Your task to perform on an android device: Set the phone to "Do not disturb". Image 0: 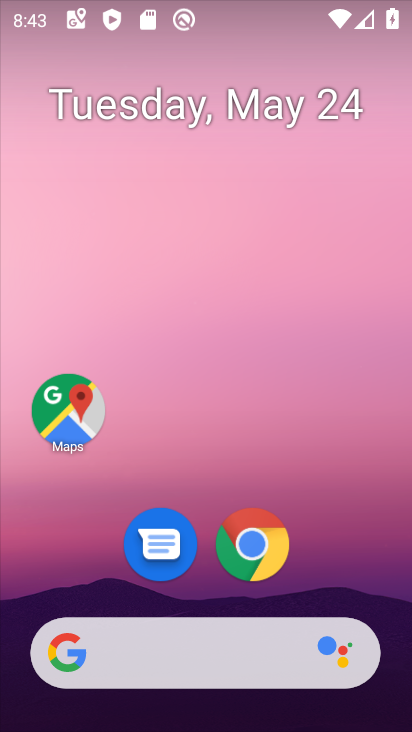
Step 0: drag from (385, 608) to (215, 41)
Your task to perform on an android device: Set the phone to "Do not disturb". Image 1: 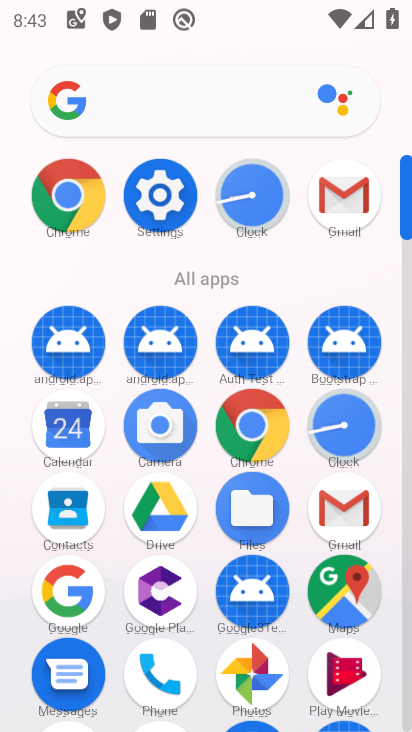
Step 1: click (173, 187)
Your task to perform on an android device: Set the phone to "Do not disturb". Image 2: 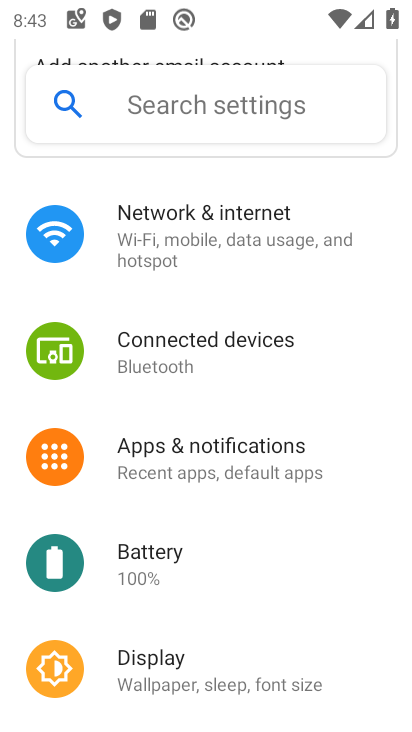
Step 2: drag from (259, 653) to (216, 309)
Your task to perform on an android device: Set the phone to "Do not disturb". Image 3: 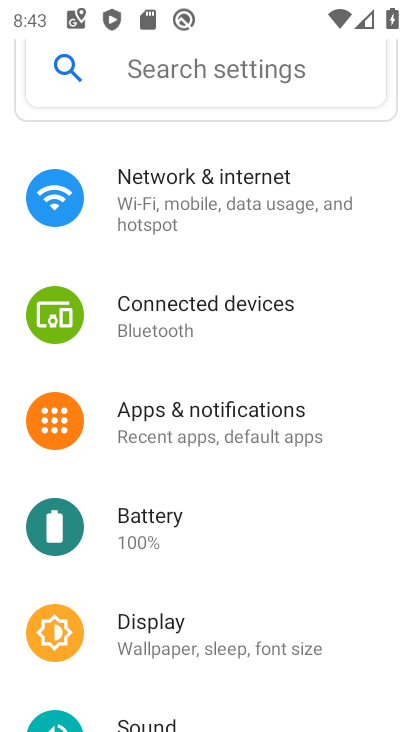
Step 3: drag from (202, 448) to (173, 277)
Your task to perform on an android device: Set the phone to "Do not disturb". Image 4: 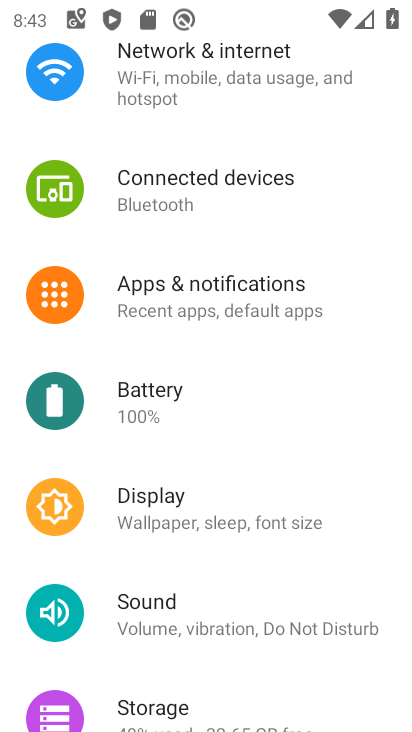
Step 4: click (176, 605)
Your task to perform on an android device: Set the phone to "Do not disturb". Image 5: 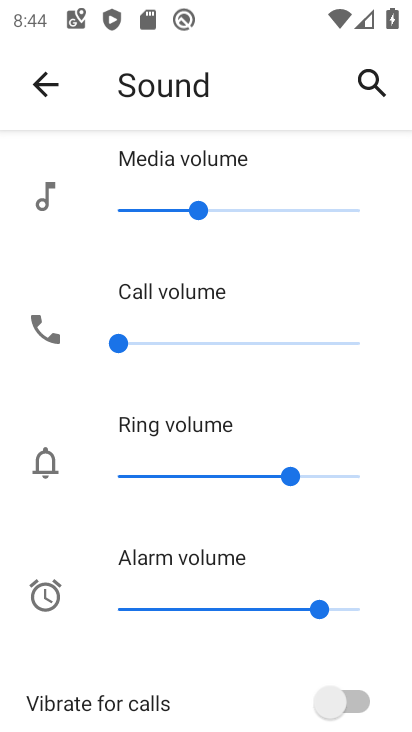
Step 5: drag from (234, 675) to (225, 120)
Your task to perform on an android device: Set the phone to "Do not disturb". Image 6: 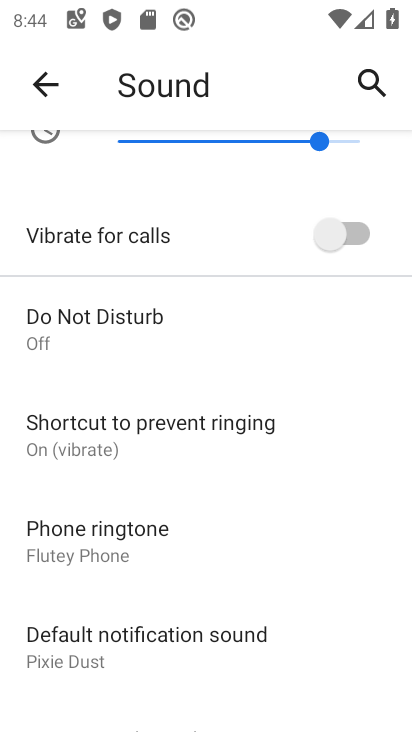
Step 6: drag from (190, 687) to (175, 252)
Your task to perform on an android device: Set the phone to "Do not disturb". Image 7: 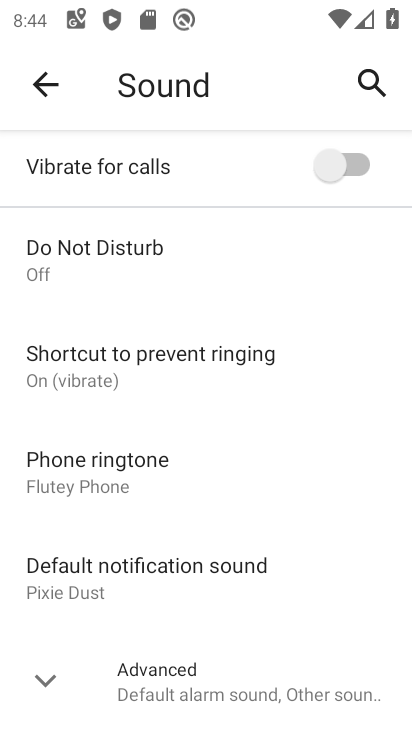
Step 7: click (175, 252)
Your task to perform on an android device: Set the phone to "Do not disturb". Image 8: 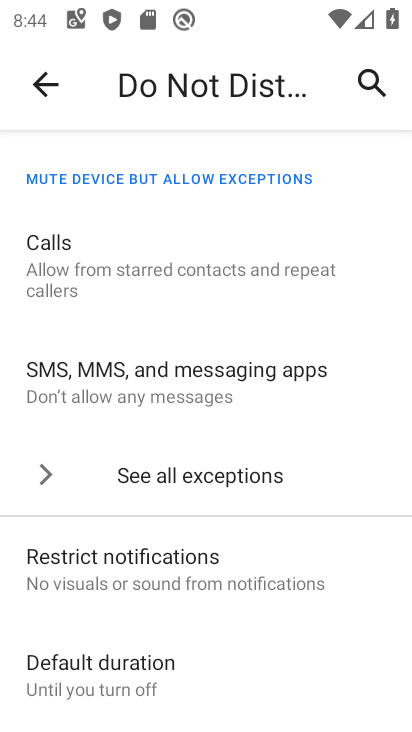
Step 8: drag from (209, 620) to (181, 140)
Your task to perform on an android device: Set the phone to "Do not disturb". Image 9: 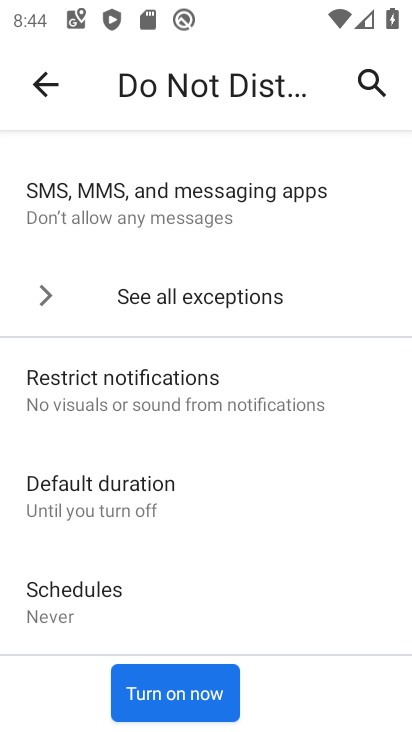
Step 9: click (178, 692)
Your task to perform on an android device: Set the phone to "Do not disturb". Image 10: 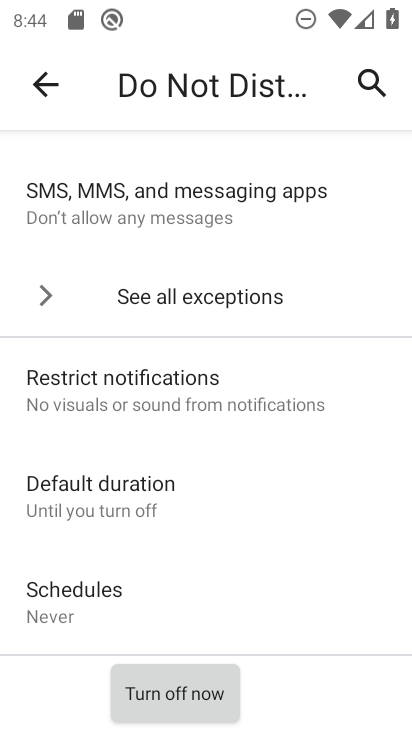
Step 10: task complete